Your task to perform on an android device: set the timer Image 0: 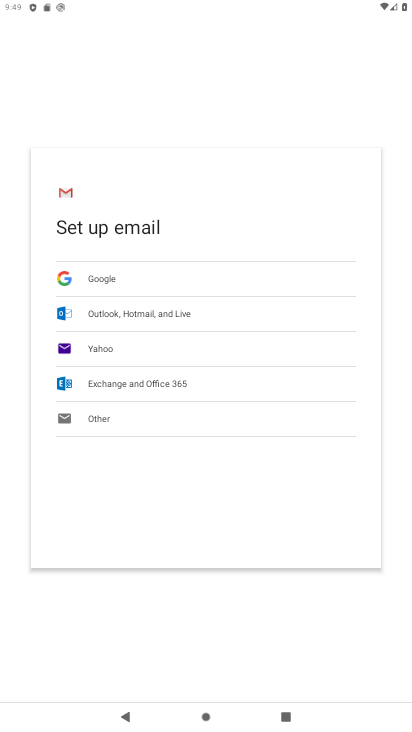
Step 0: press home button
Your task to perform on an android device: set the timer Image 1: 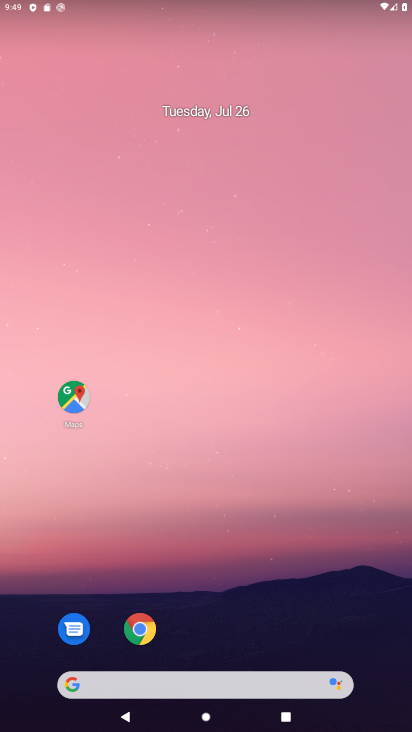
Step 1: drag from (223, 654) to (249, 196)
Your task to perform on an android device: set the timer Image 2: 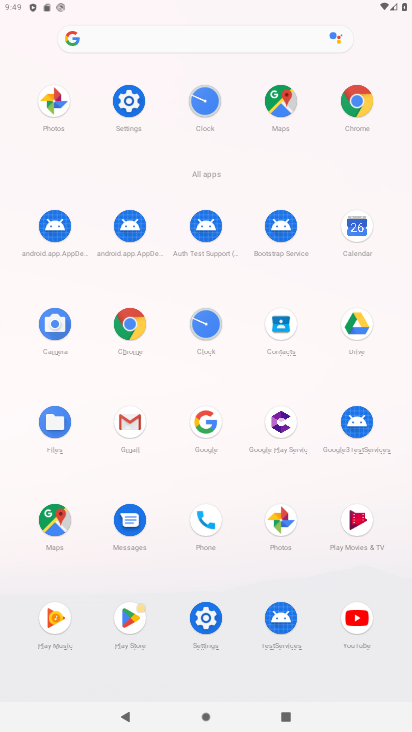
Step 2: click (130, 115)
Your task to perform on an android device: set the timer Image 3: 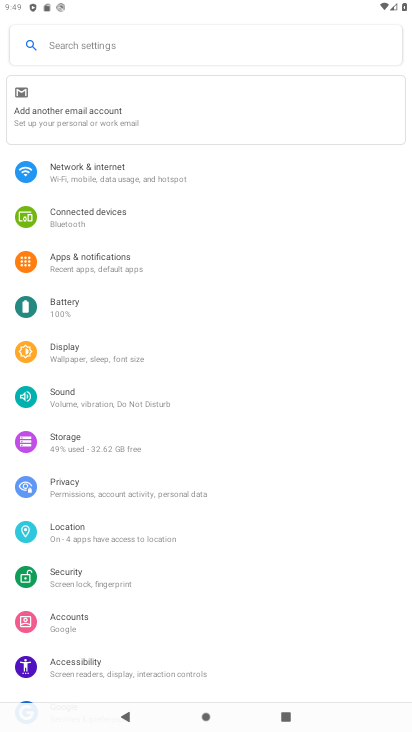
Step 3: task complete